Your task to perform on an android device: stop showing notifications on the lock screen Image 0: 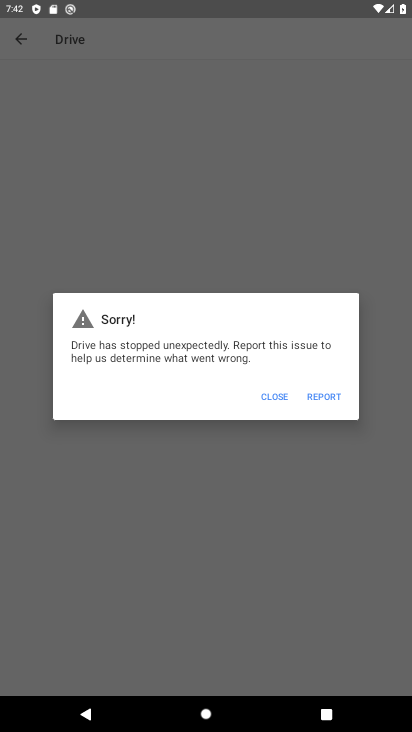
Step 0: press home button
Your task to perform on an android device: stop showing notifications on the lock screen Image 1: 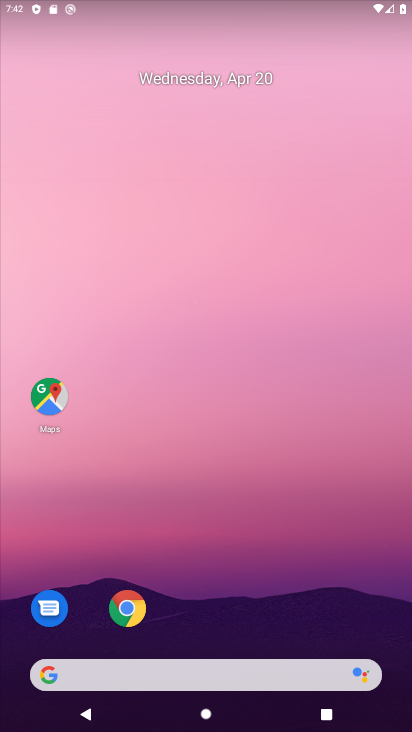
Step 1: drag from (177, 619) to (220, 155)
Your task to perform on an android device: stop showing notifications on the lock screen Image 2: 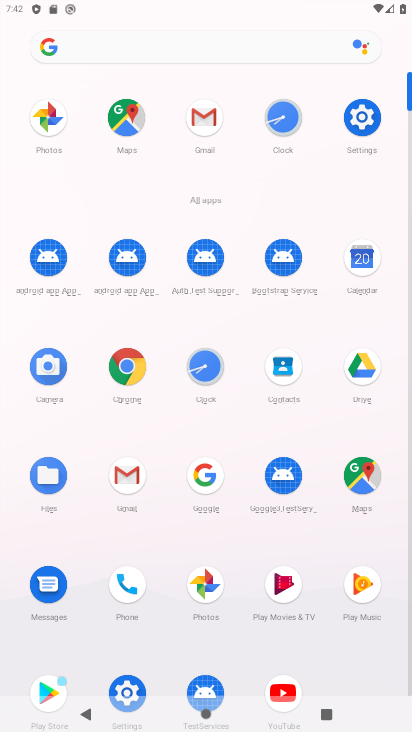
Step 2: click (369, 117)
Your task to perform on an android device: stop showing notifications on the lock screen Image 3: 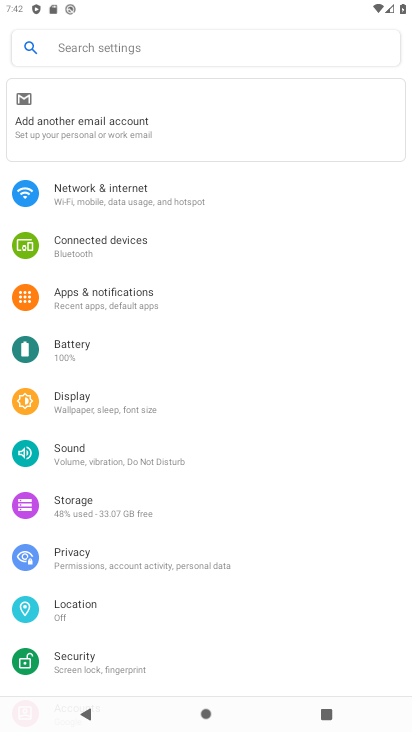
Step 3: click (159, 304)
Your task to perform on an android device: stop showing notifications on the lock screen Image 4: 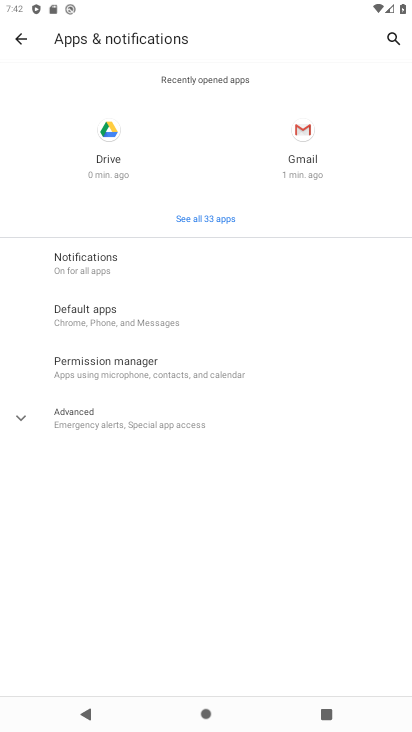
Step 4: click (120, 264)
Your task to perform on an android device: stop showing notifications on the lock screen Image 5: 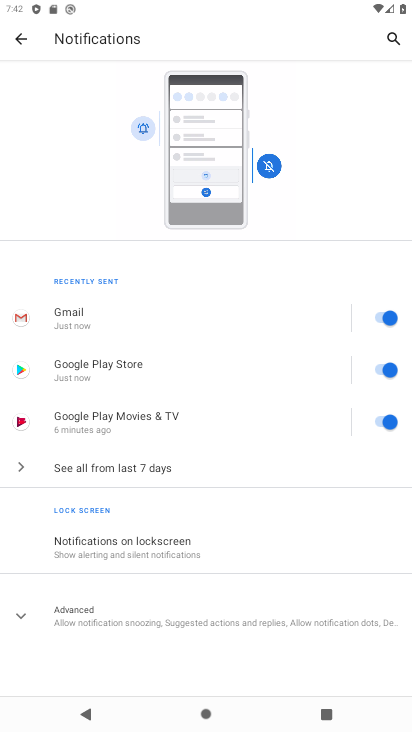
Step 5: click (144, 543)
Your task to perform on an android device: stop showing notifications on the lock screen Image 6: 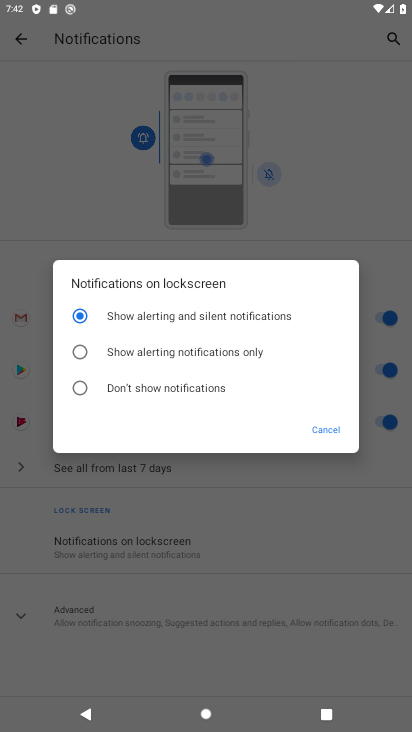
Step 6: click (106, 388)
Your task to perform on an android device: stop showing notifications on the lock screen Image 7: 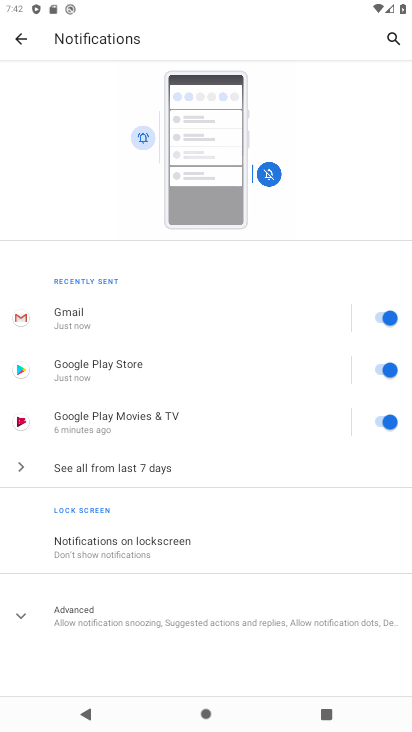
Step 7: task complete